Your task to perform on an android device: choose inbox layout in the gmail app Image 0: 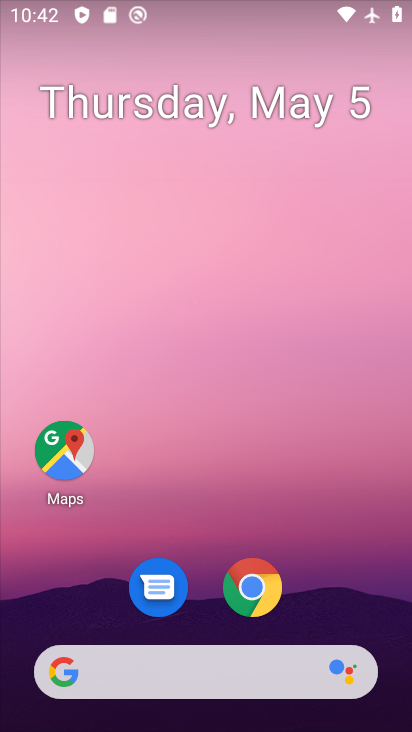
Step 0: drag from (340, 538) to (270, 58)
Your task to perform on an android device: choose inbox layout in the gmail app Image 1: 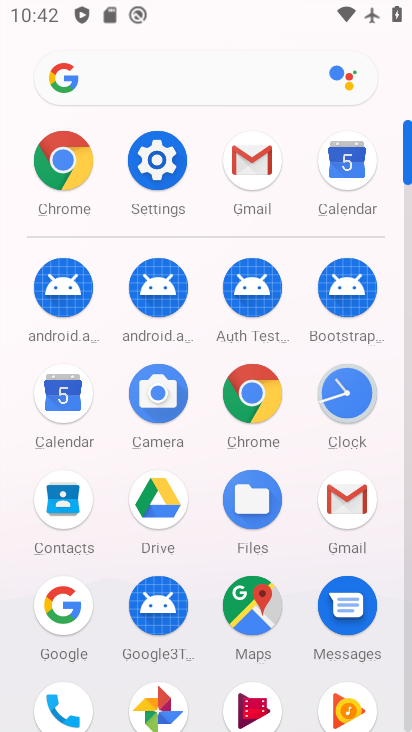
Step 1: drag from (2, 596) to (1, 285)
Your task to perform on an android device: choose inbox layout in the gmail app Image 2: 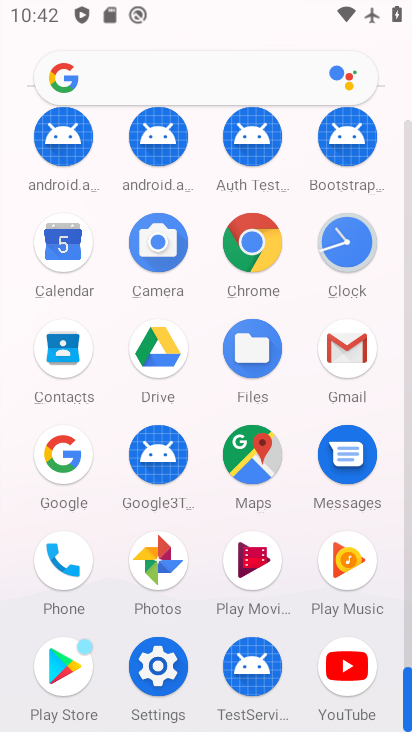
Step 2: drag from (10, 618) to (14, 344)
Your task to perform on an android device: choose inbox layout in the gmail app Image 3: 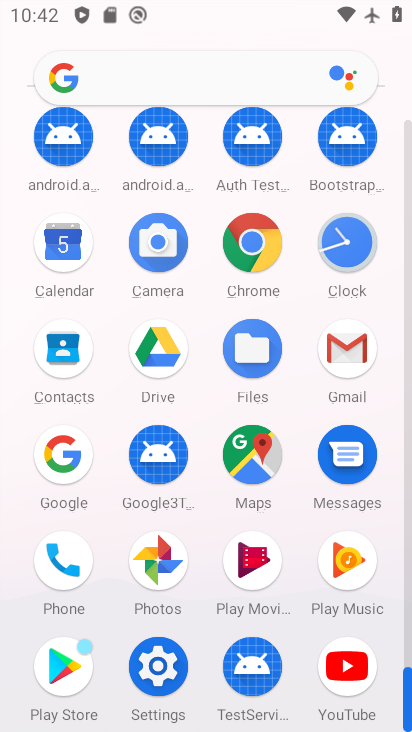
Step 3: click (347, 341)
Your task to perform on an android device: choose inbox layout in the gmail app Image 4: 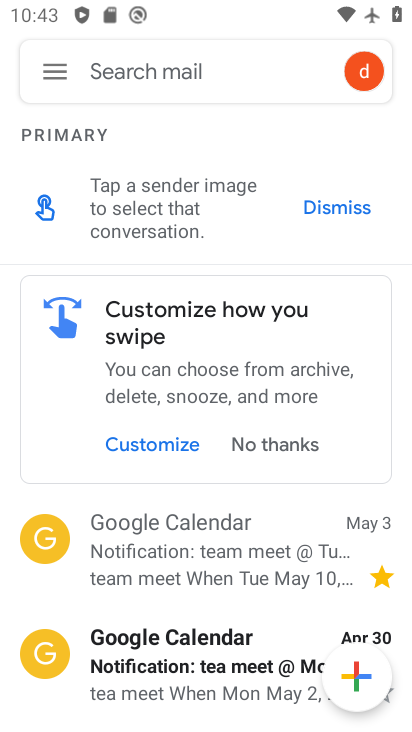
Step 4: click (59, 73)
Your task to perform on an android device: choose inbox layout in the gmail app Image 5: 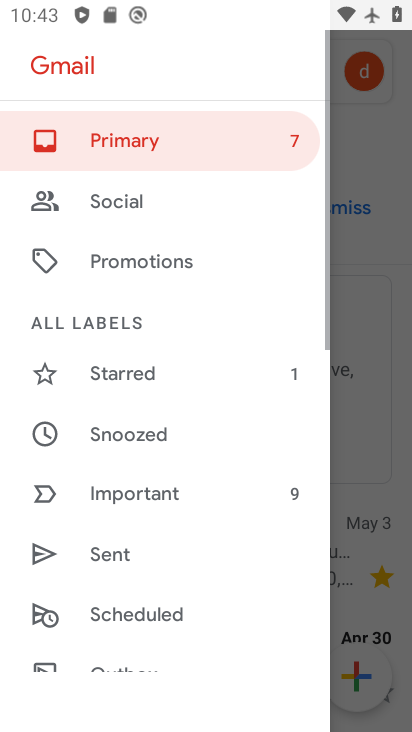
Step 5: drag from (154, 608) to (178, 125)
Your task to perform on an android device: choose inbox layout in the gmail app Image 6: 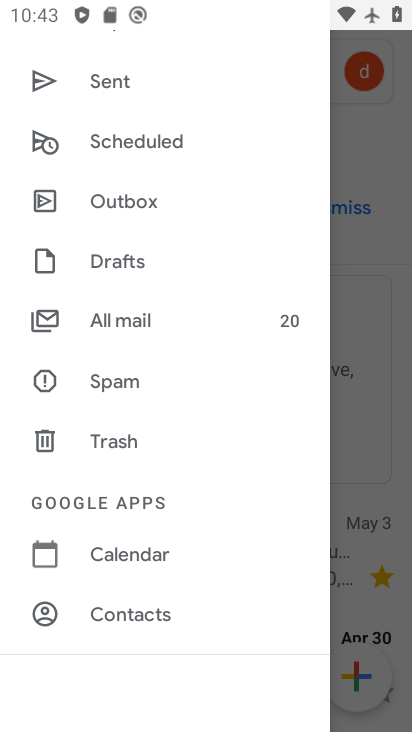
Step 6: drag from (180, 573) to (173, 157)
Your task to perform on an android device: choose inbox layout in the gmail app Image 7: 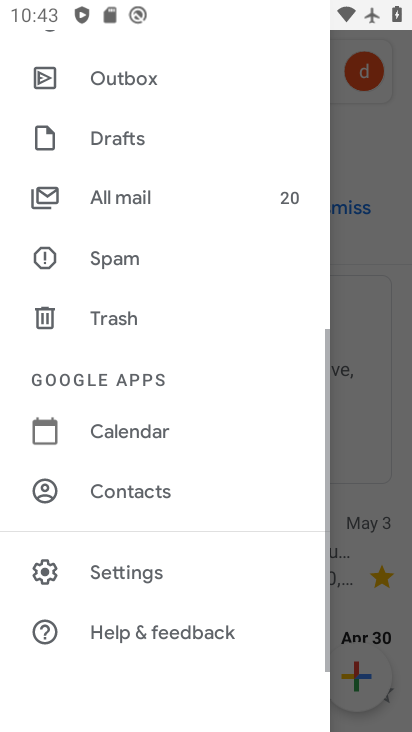
Step 7: click (166, 571)
Your task to perform on an android device: choose inbox layout in the gmail app Image 8: 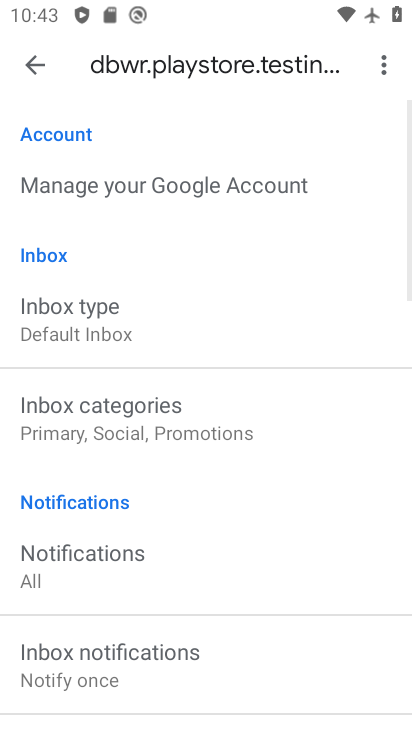
Step 8: drag from (196, 638) to (238, 171)
Your task to perform on an android device: choose inbox layout in the gmail app Image 9: 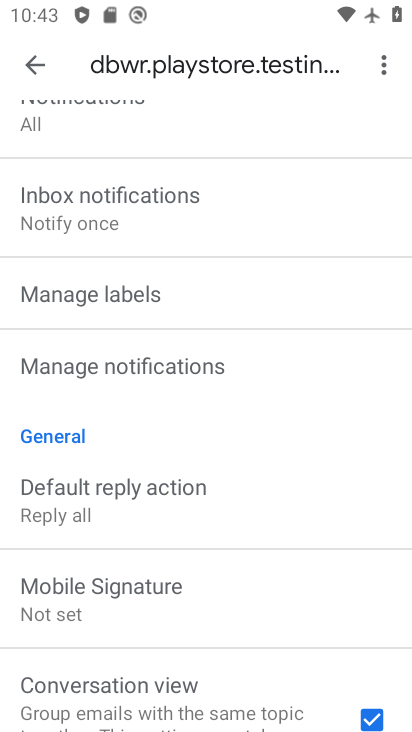
Step 9: drag from (245, 543) to (241, 135)
Your task to perform on an android device: choose inbox layout in the gmail app Image 10: 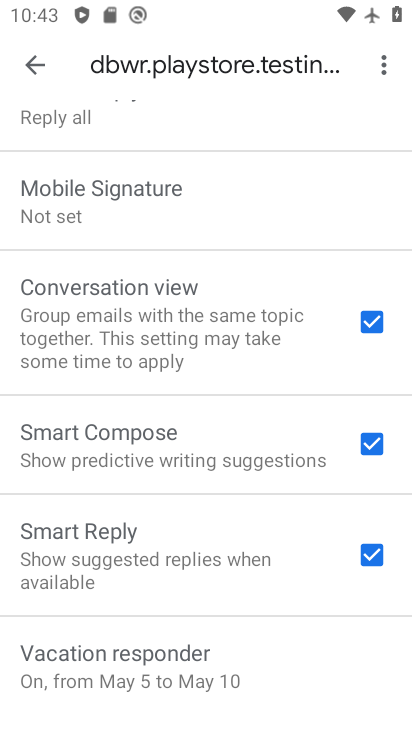
Step 10: drag from (201, 649) to (255, 199)
Your task to perform on an android device: choose inbox layout in the gmail app Image 11: 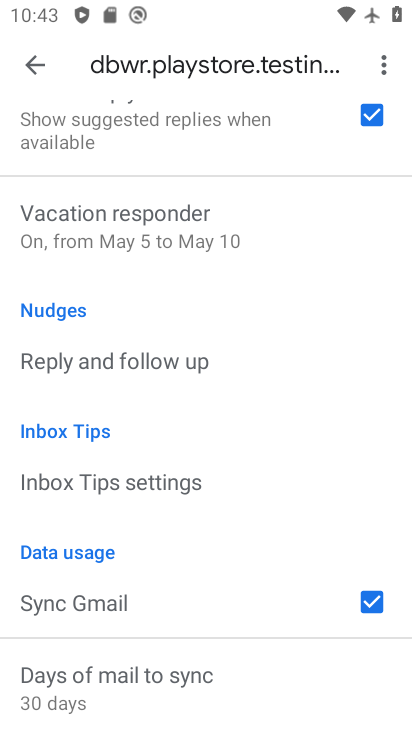
Step 11: drag from (221, 324) to (228, 697)
Your task to perform on an android device: choose inbox layout in the gmail app Image 12: 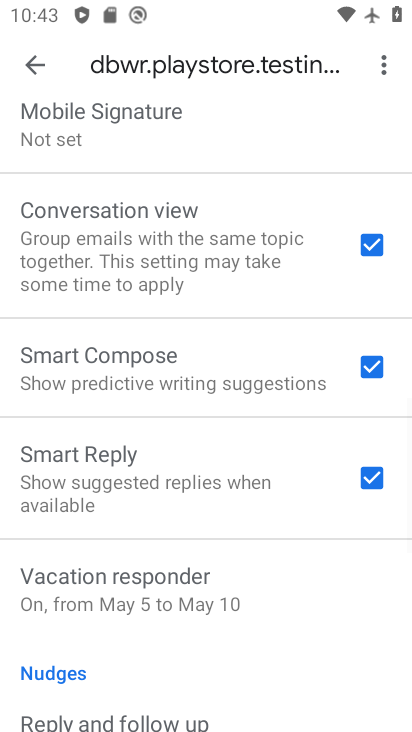
Step 12: drag from (198, 162) to (221, 640)
Your task to perform on an android device: choose inbox layout in the gmail app Image 13: 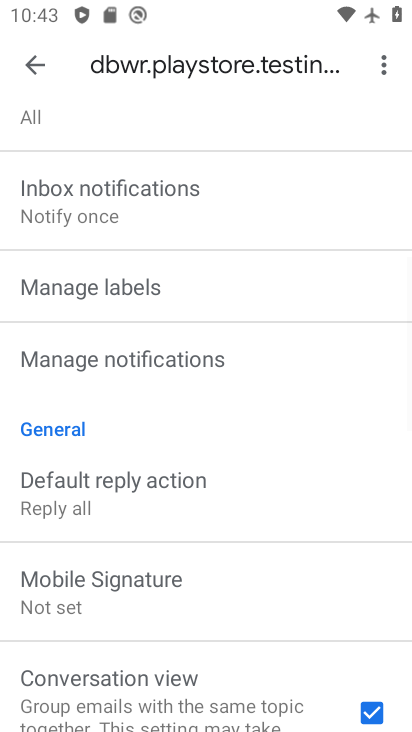
Step 13: drag from (209, 155) to (253, 664)
Your task to perform on an android device: choose inbox layout in the gmail app Image 14: 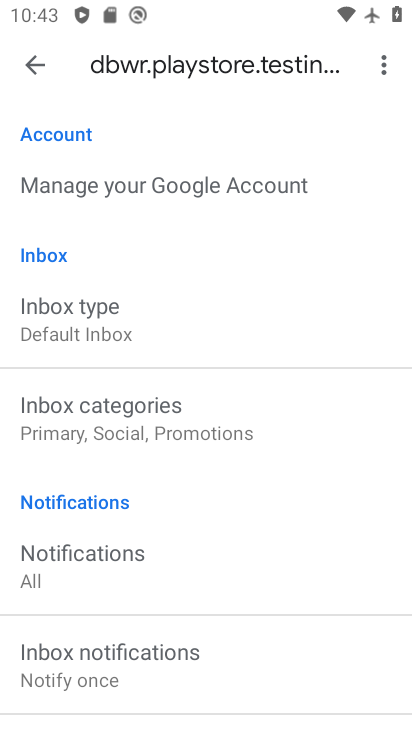
Step 14: click (133, 320)
Your task to perform on an android device: choose inbox layout in the gmail app Image 15: 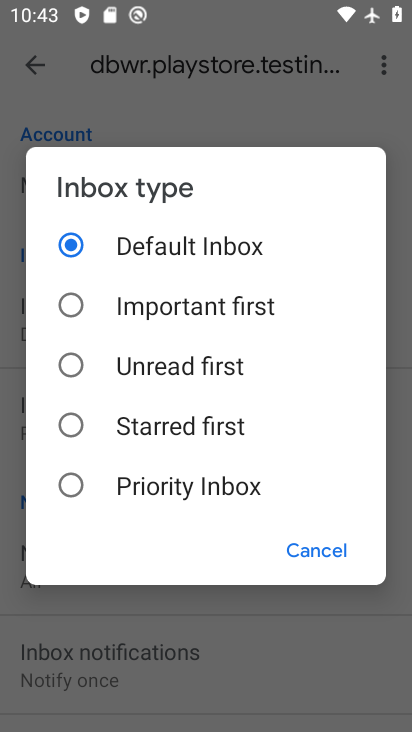
Step 15: click (138, 315)
Your task to perform on an android device: choose inbox layout in the gmail app Image 16: 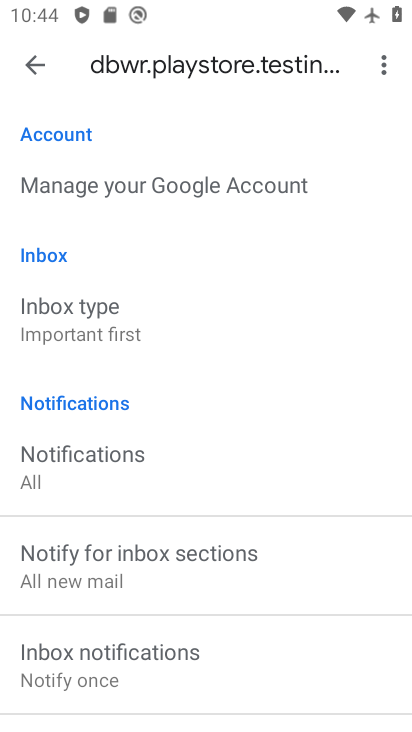
Step 16: task complete